Your task to perform on an android device: Open settings Image 0: 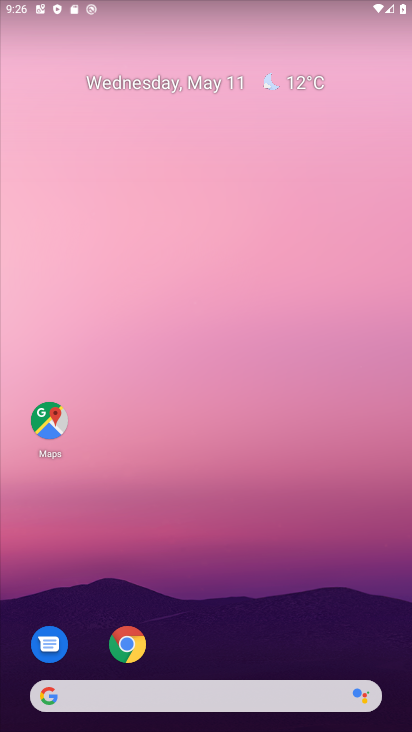
Step 0: drag from (249, 636) to (306, 243)
Your task to perform on an android device: Open settings Image 1: 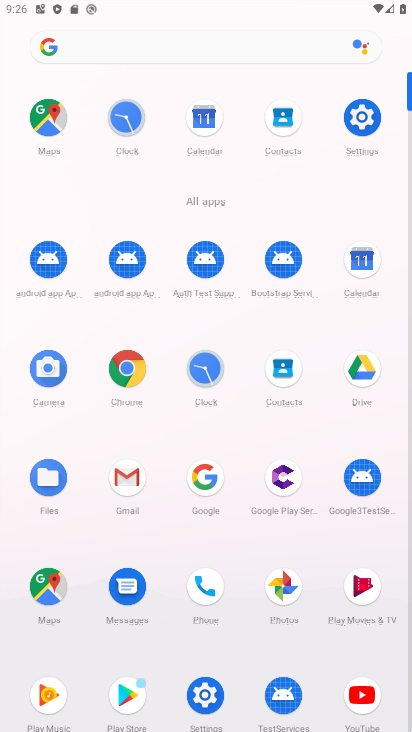
Step 1: click (350, 140)
Your task to perform on an android device: Open settings Image 2: 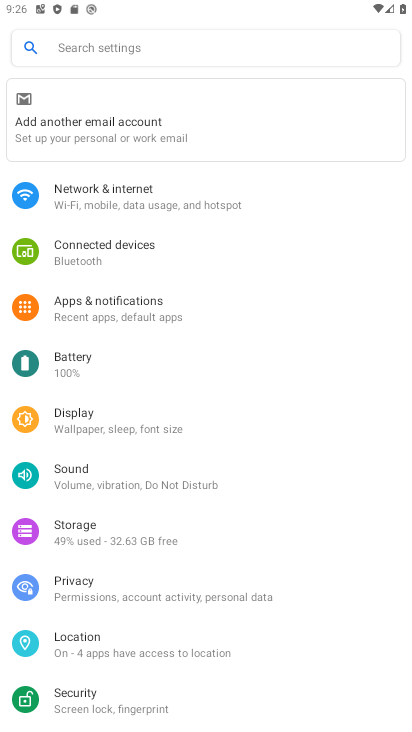
Step 2: task complete